Your task to perform on an android device: Open the map Image 0: 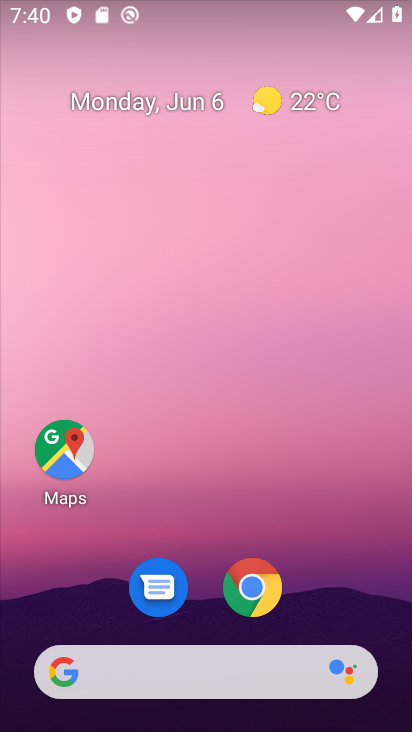
Step 0: click (68, 452)
Your task to perform on an android device: Open the map Image 1: 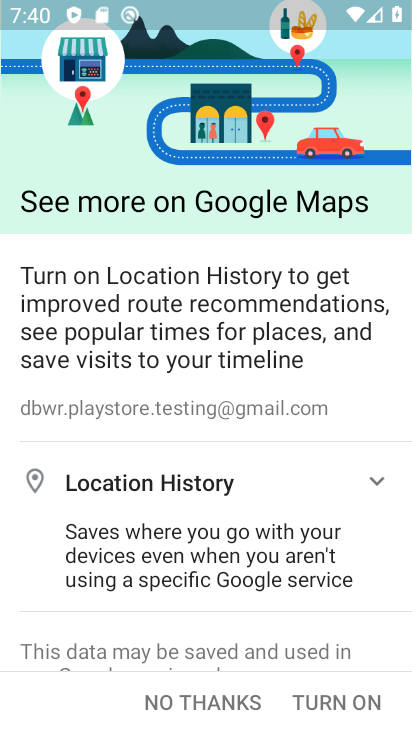
Step 1: task complete